Your task to perform on an android device: turn on the 24-hour format for clock Image 0: 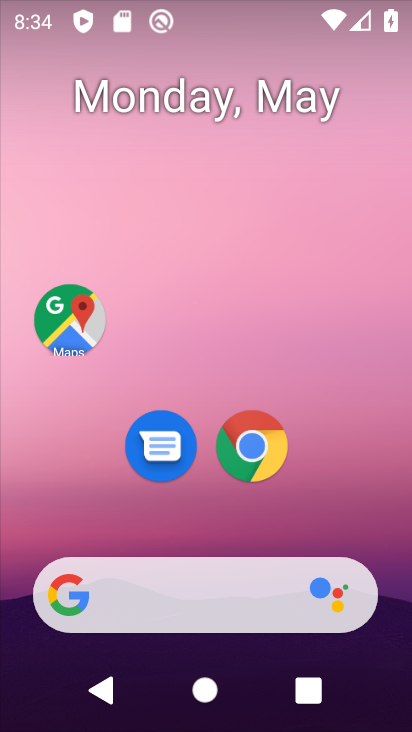
Step 0: drag from (359, 233) to (355, 75)
Your task to perform on an android device: turn on the 24-hour format for clock Image 1: 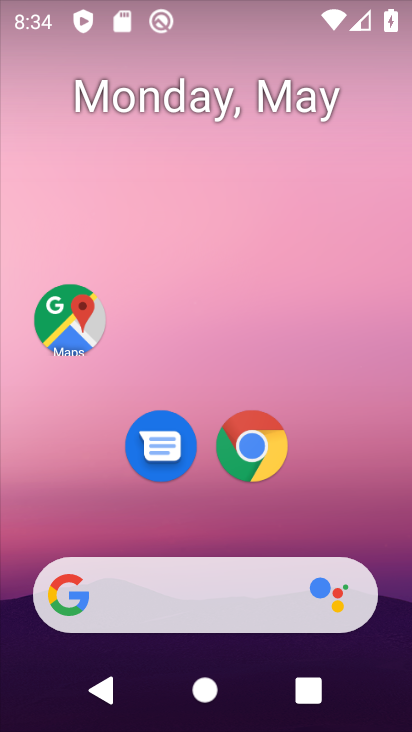
Step 1: drag from (338, 347) to (326, 86)
Your task to perform on an android device: turn on the 24-hour format for clock Image 2: 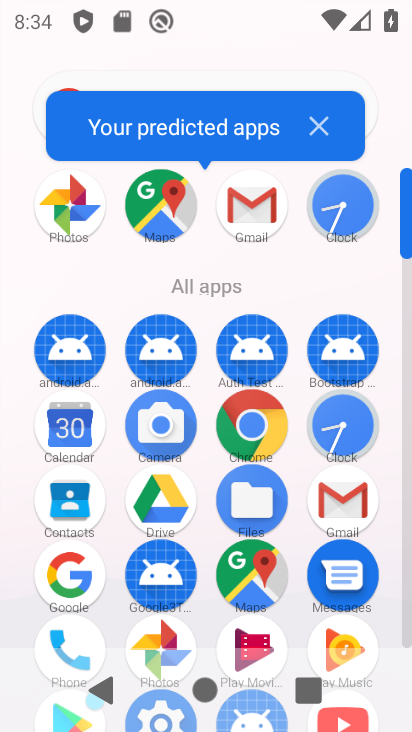
Step 2: click (334, 420)
Your task to perform on an android device: turn on the 24-hour format for clock Image 3: 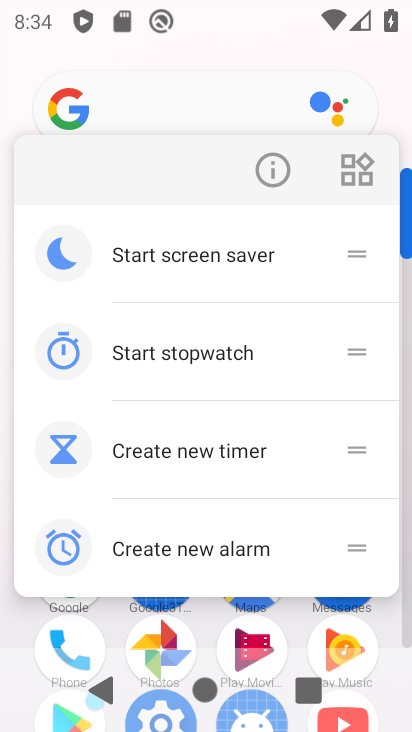
Step 3: click (32, 536)
Your task to perform on an android device: turn on the 24-hour format for clock Image 4: 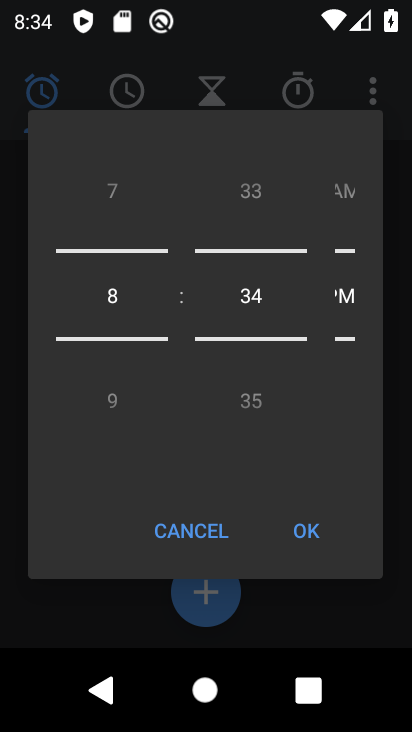
Step 4: click (185, 526)
Your task to perform on an android device: turn on the 24-hour format for clock Image 5: 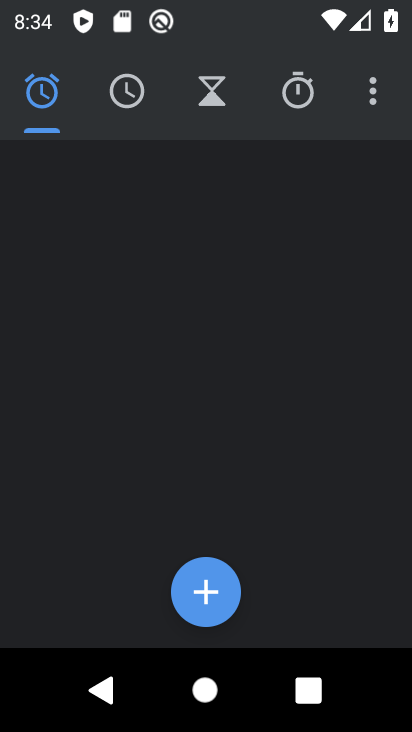
Step 5: click (375, 84)
Your task to perform on an android device: turn on the 24-hour format for clock Image 6: 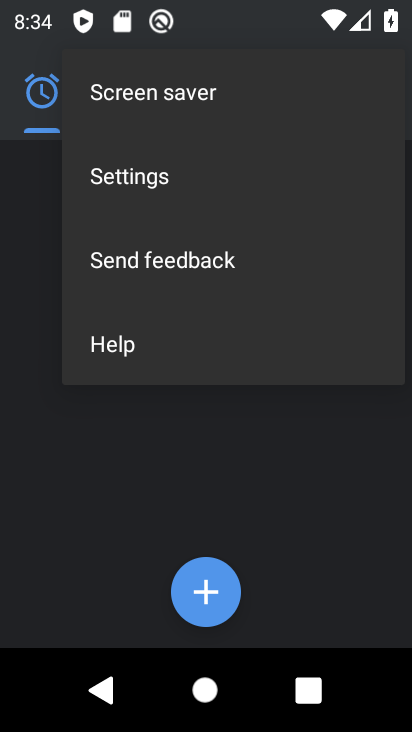
Step 6: click (171, 180)
Your task to perform on an android device: turn on the 24-hour format for clock Image 7: 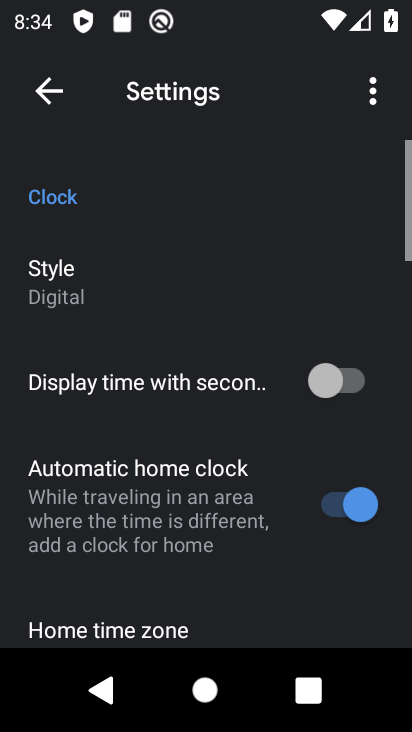
Step 7: drag from (142, 571) to (227, 67)
Your task to perform on an android device: turn on the 24-hour format for clock Image 8: 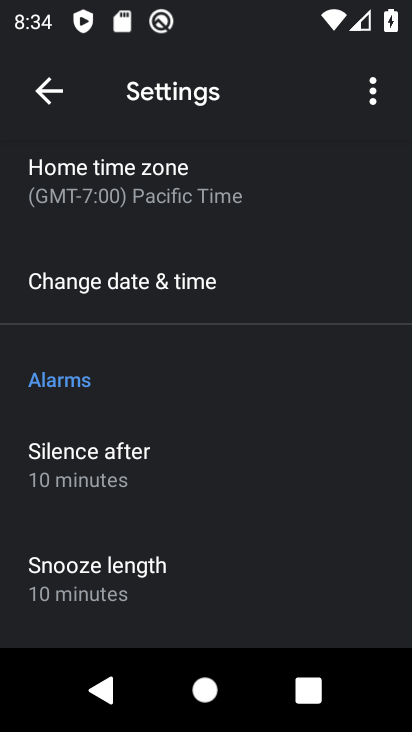
Step 8: click (182, 288)
Your task to perform on an android device: turn on the 24-hour format for clock Image 9: 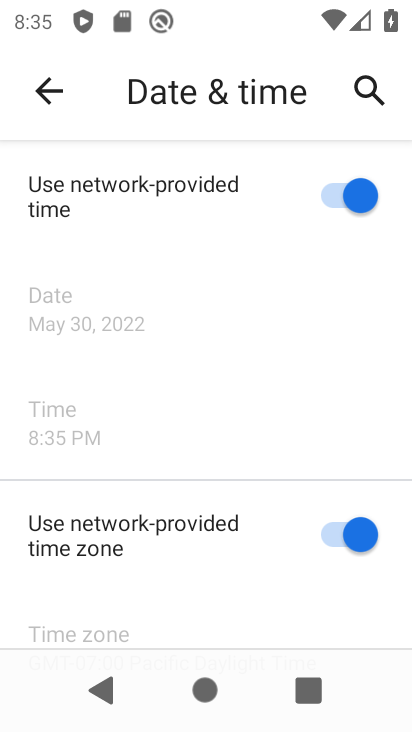
Step 9: drag from (86, 516) to (144, 128)
Your task to perform on an android device: turn on the 24-hour format for clock Image 10: 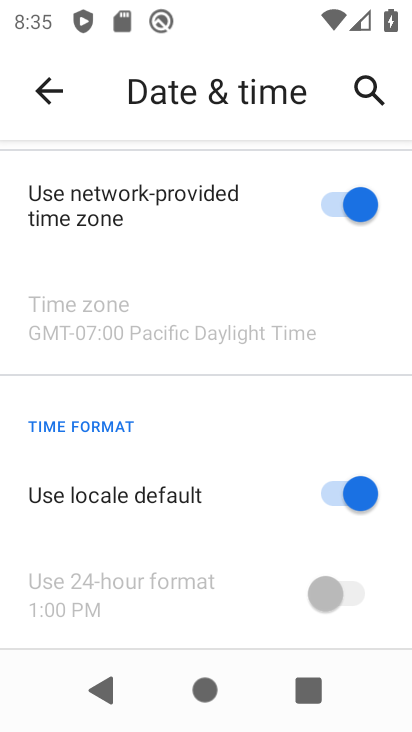
Step 10: click (331, 479)
Your task to perform on an android device: turn on the 24-hour format for clock Image 11: 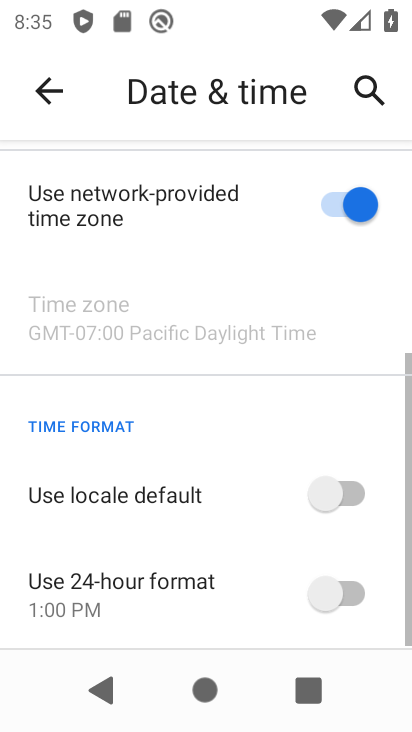
Step 11: click (339, 601)
Your task to perform on an android device: turn on the 24-hour format for clock Image 12: 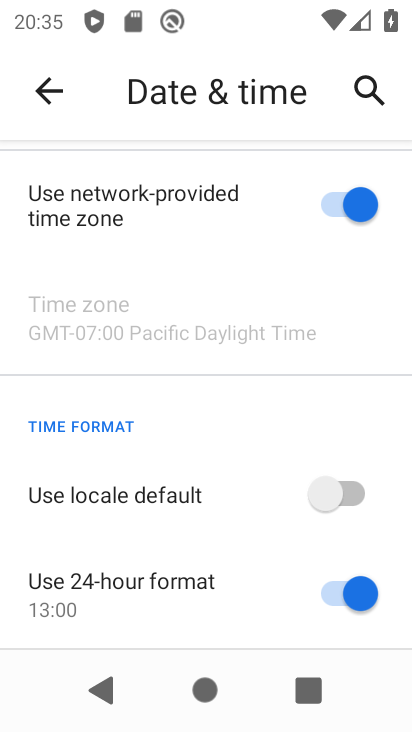
Step 12: task complete